Your task to perform on an android device: Is it going to rain tomorrow? Image 0: 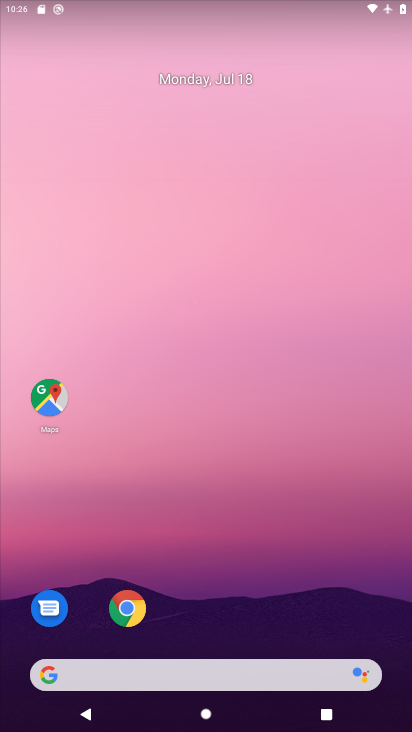
Step 0: drag from (186, 636) to (150, 47)
Your task to perform on an android device: Is it going to rain tomorrow? Image 1: 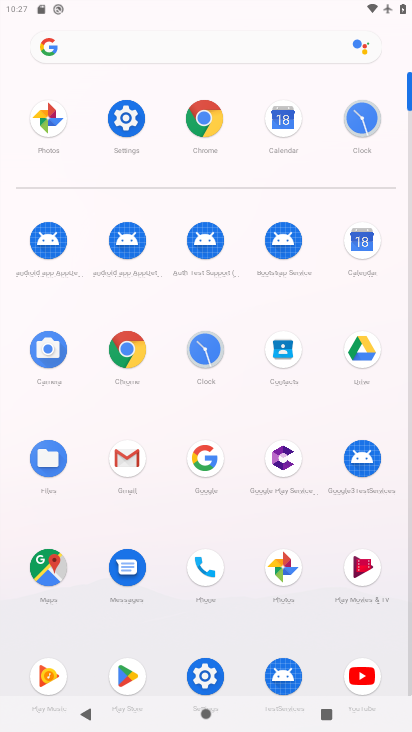
Step 1: click (200, 453)
Your task to perform on an android device: Is it going to rain tomorrow? Image 2: 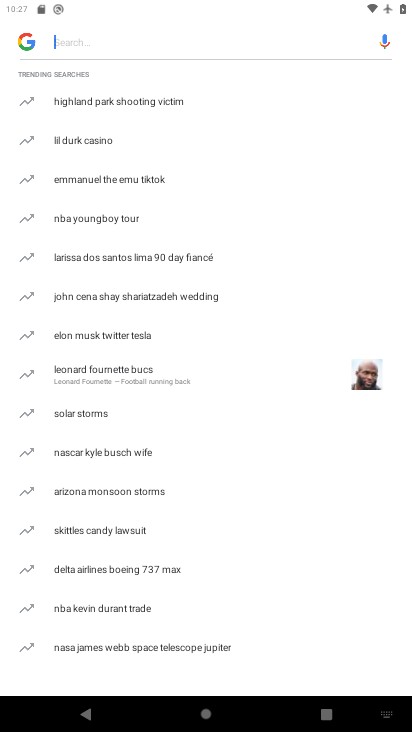
Step 2: type "weather"
Your task to perform on an android device: Is it going to rain tomorrow? Image 3: 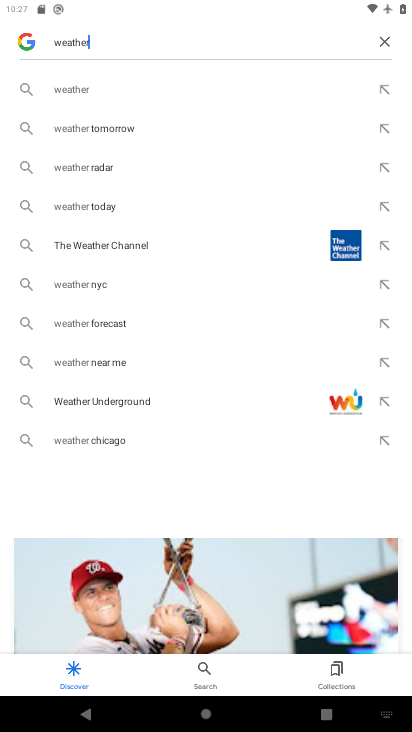
Step 3: click (71, 81)
Your task to perform on an android device: Is it going to rain tomorrow? Image 4: 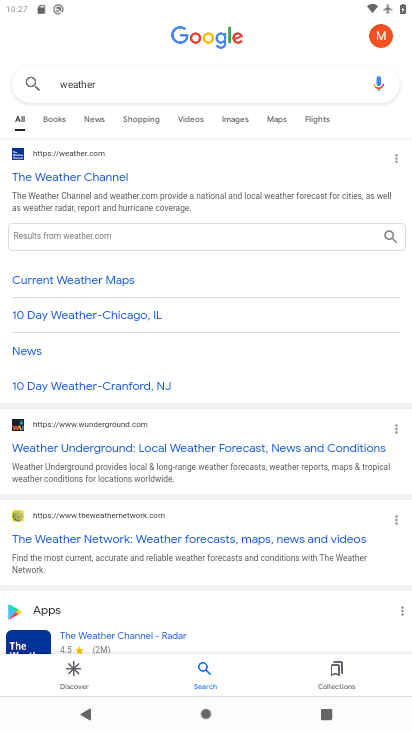
Step 4: drag from (98, 582) to (106, 20)
Your task to perform on an android device: Is it going to rain tomorrow? Image 5: 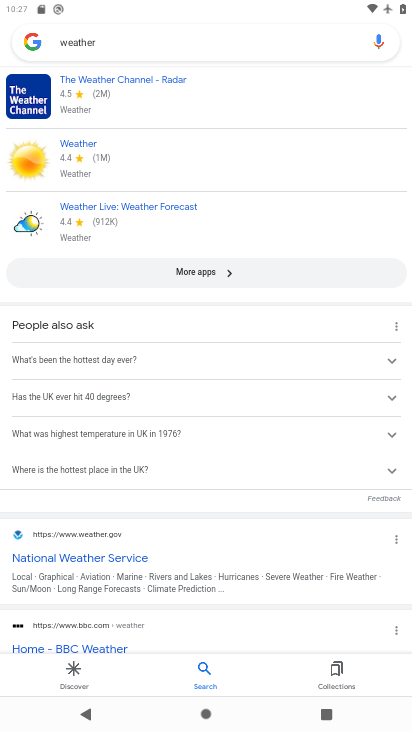
Step 5: drag from (142, 555) to (128, 61)
Your task to perform on an android device: Is it going to rain tomorrow? Image 6: 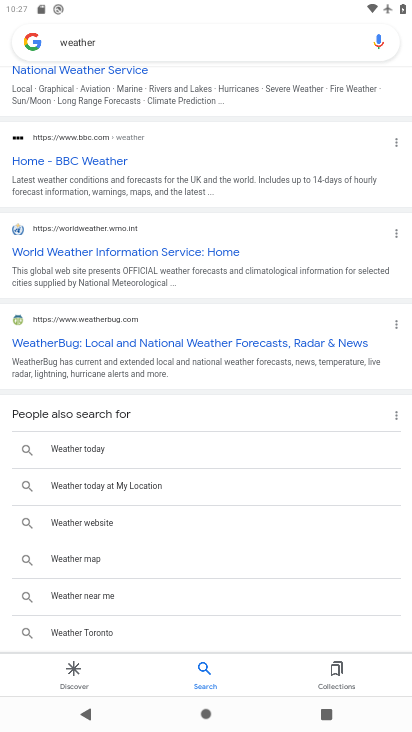
Step 6: click (72, 451)
Your task to perform on an android device: Is it going to rain tomorrow? Image 7: 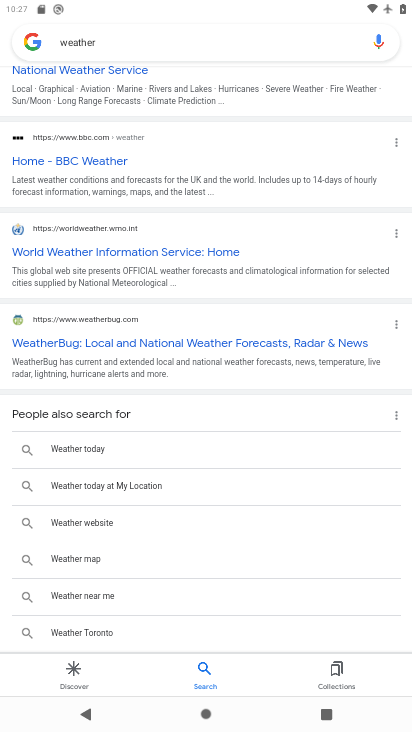
Step 7: click (71, 451)
Your task to perform on an android device: Is it going to rain tomorrow? Image 8: 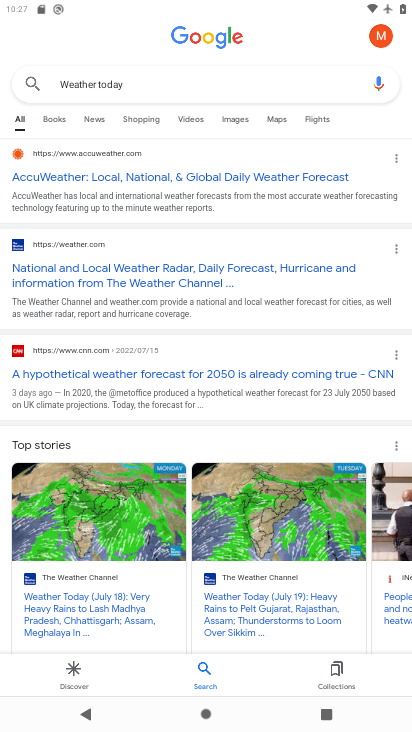
Step 8: task complete